Your task to perform on an android device: open a bookmark in the chrome app Image 0: 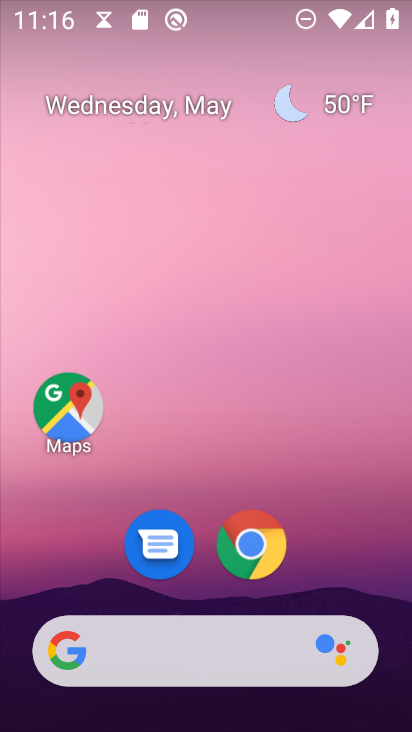
Step 0: click (245, 556)
Your task to perform on an android device: open a bookmark in the chrome app Image 1: 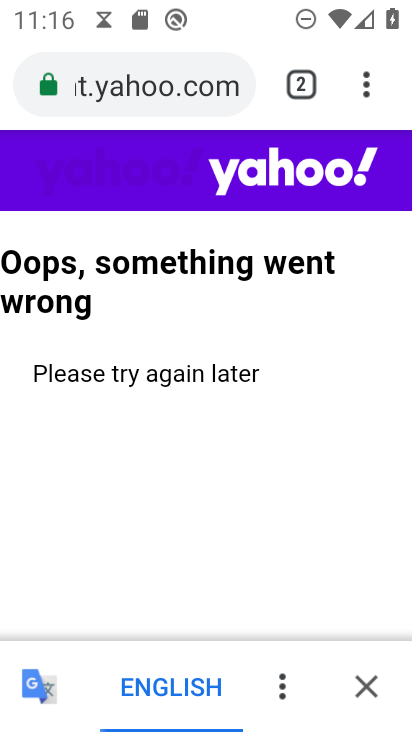
Step 1: click (377, 87)
Your task to perform on an android device: open a bookmark in the chrome app Image 2: 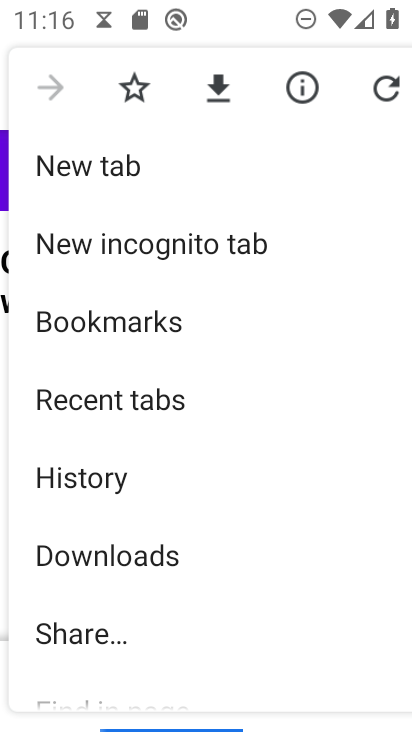
Step 2: click (212, 341)
Your task to perform on an android device: open a bookmark in the chrome app Image 3: 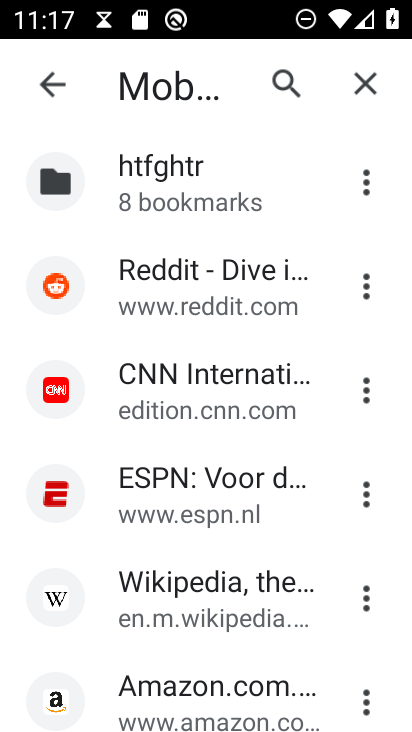
Step 3: click (144, 480)
Your task to perform on an android device: open a bookmark in the chrome app Image 4: 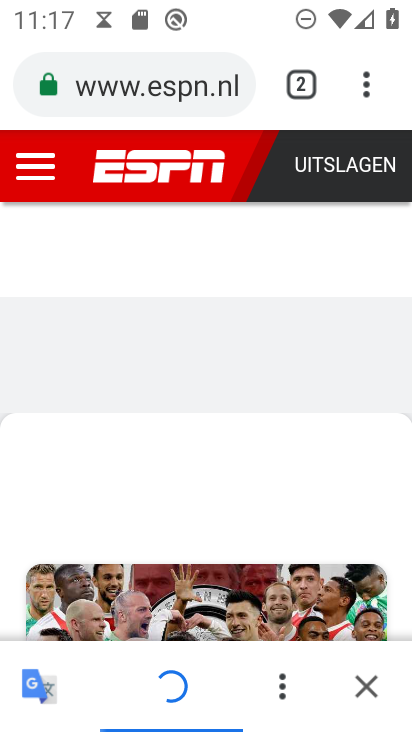
Step 4: task complete